Your task to perform on an android device: manage bookmarks in the chrome app Image 0: 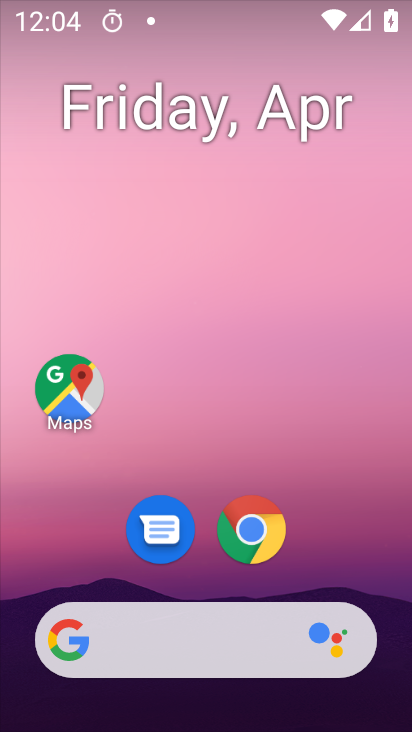
Step 0: click (279, 518)
Your task to perform on an android device: manage bookmarks in the chrome app Image 1: 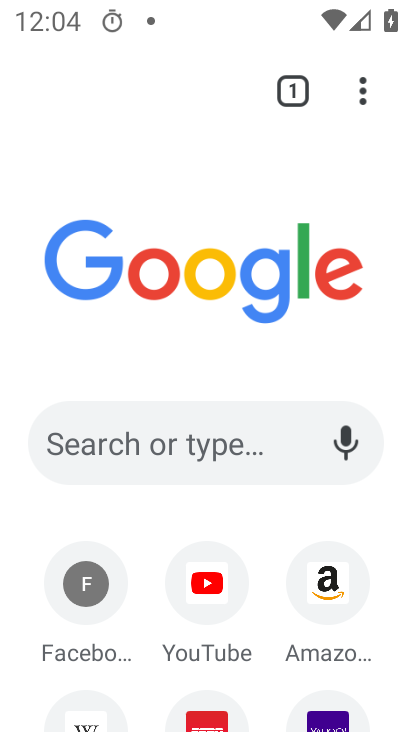
Step 1: click (369, 88)
Your task to perform on an android device: manage bookmarks in the chrome app Image 2: 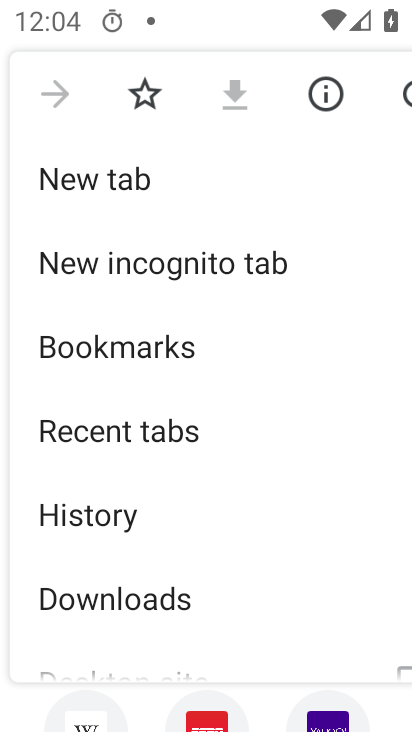
Step 2: click (163, 354)
Your task to perform on an android device: manage bookmarks in the chrome app Image 3: 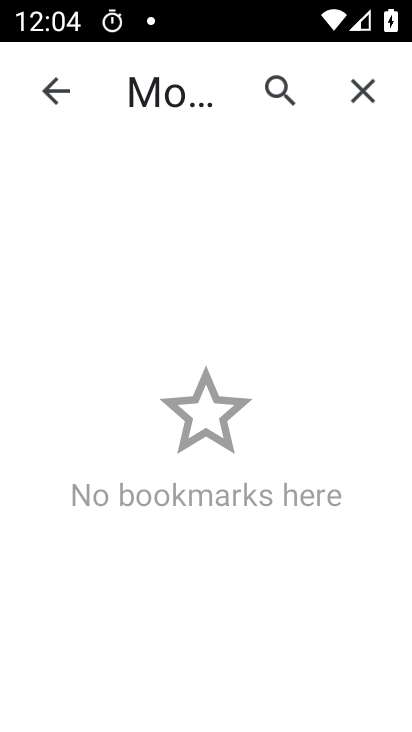
Step 3: task complete